Your task to perform on an android device: turn off location history Image 0: 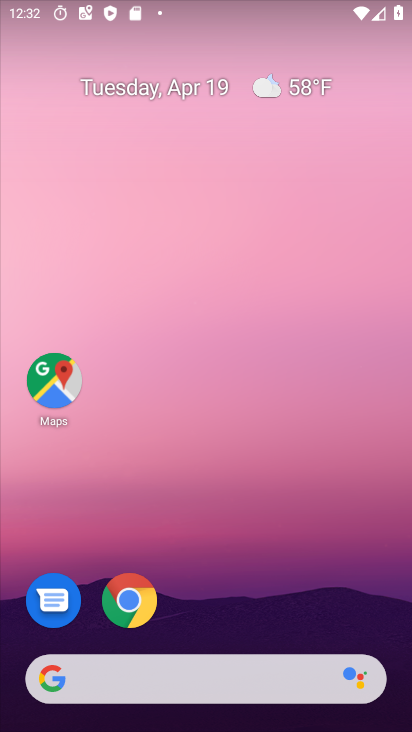
Step 0: drag from (285, 697) to (270, 283)
Your task to perform on an android device: turn off location history Image 1: 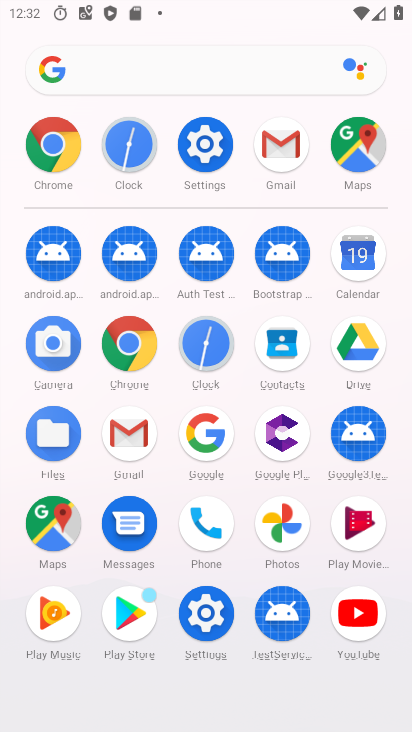
Step 1: click (221, 166)
Your task to perform on an android device: turn off location history Image 2: 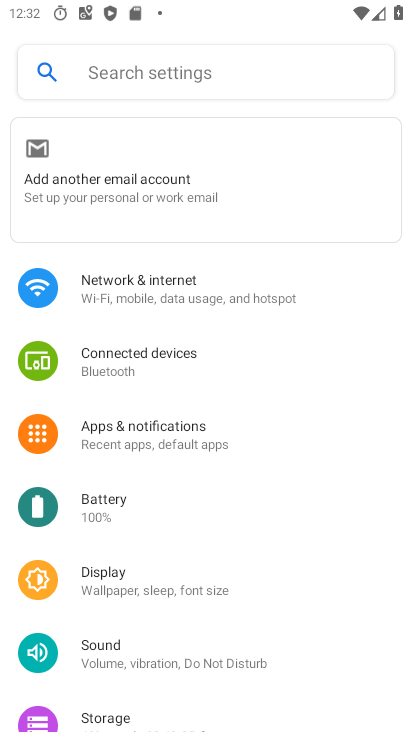
Step 2: click (184, 79)
Your task to perform on an android device: turn off location history Image 3: 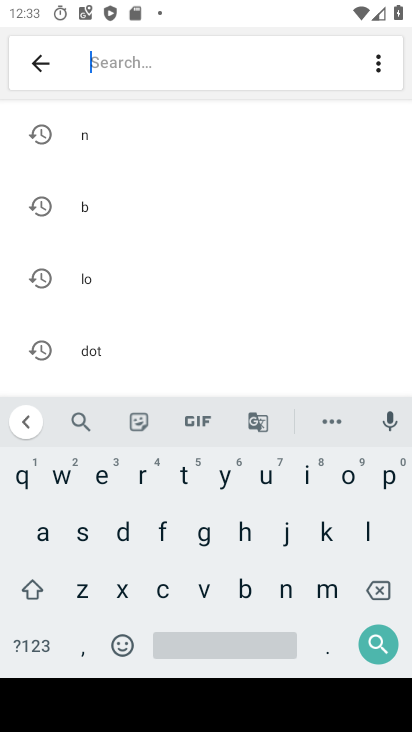
Step 3: click (114, 282)
Your task to perform on an android device: turn off location history Image 4: 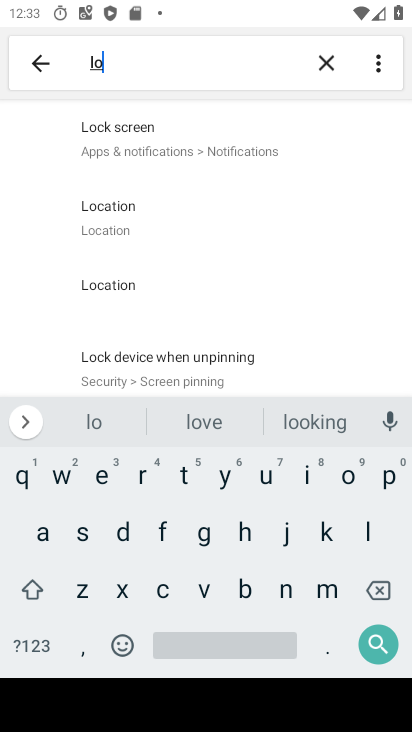
Step 4: click (136, 231)
Your task to perform on an android device: turn off location history Image 5: 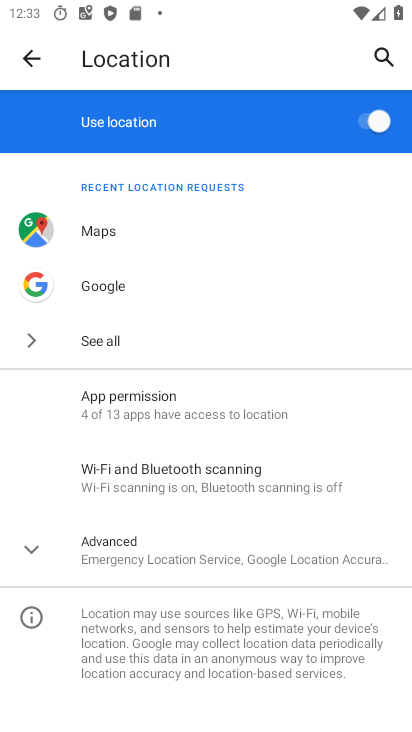
Step 5: click (44, 542)
Your task to perform on an android device: turn off location history Image 6: 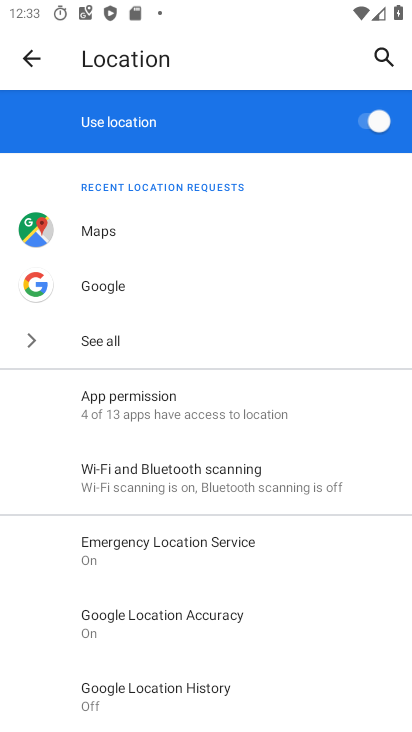
Step 6: click (165, 690)
Your task to perform on an android device: turn off location history Image 7: 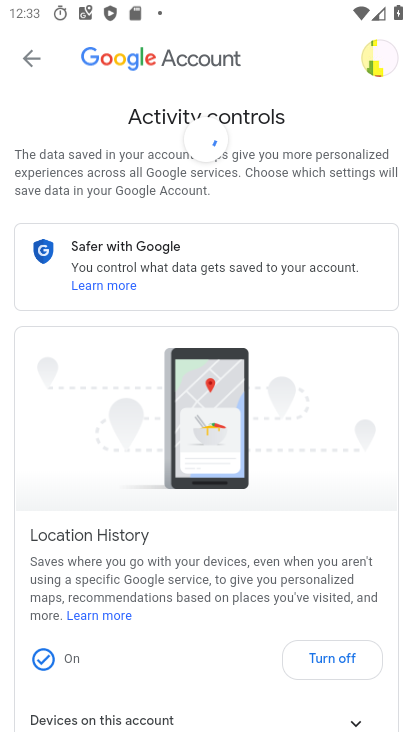
Step 7: drag from (201, 502) to (298, 284)
Your task to perform on an android device: turn off location history Image 8: 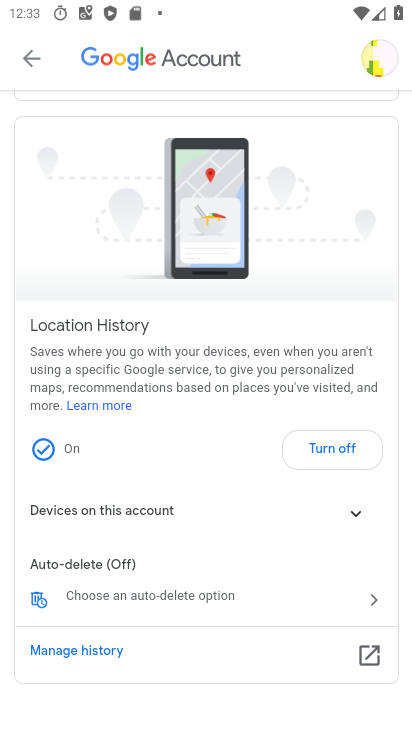
Step 8: click (319, 451)
Your task to perform on an android device: turn off location history Image 9: 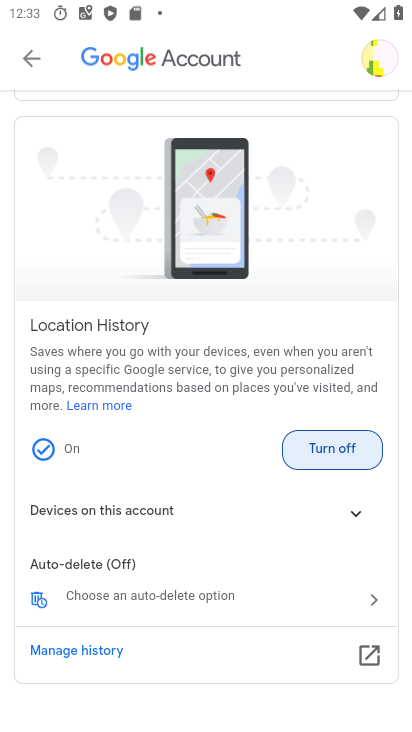
Step 9: task complete